Your task to perform on an android device: Go to eBay Image 0: 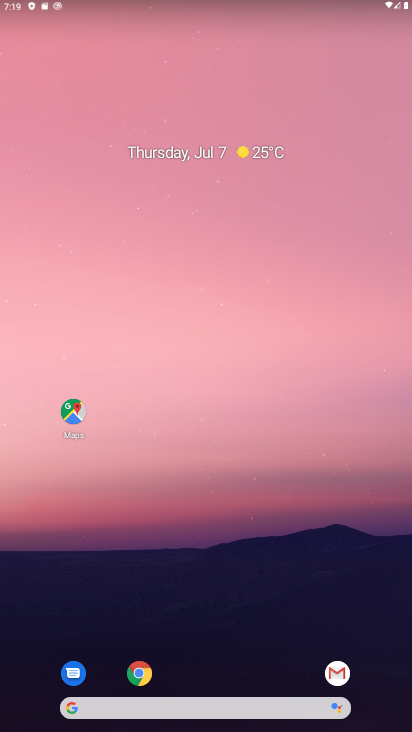
Step 0: click (138, 679)
Your task to perform on an android device: Go to eBay Image 1: 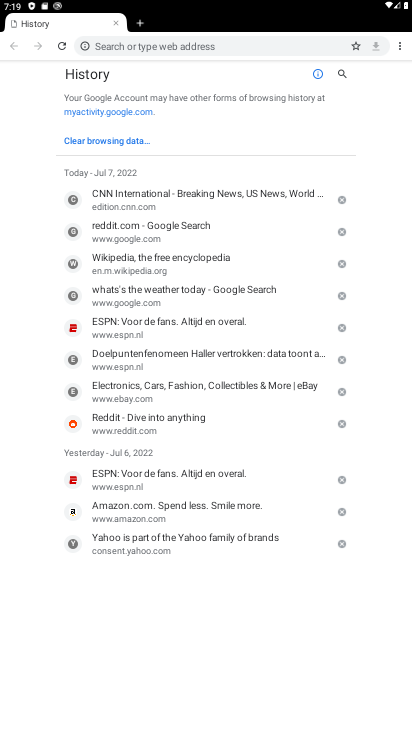
Step 1: click (134, 42)
Your task to perform on an android device: Go to eBay Image 2: 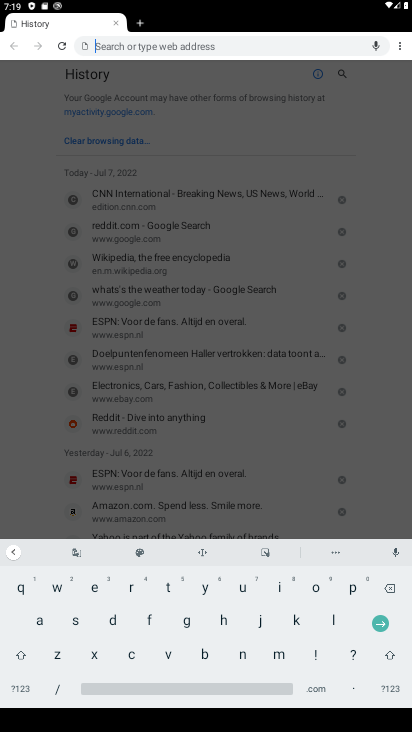
Step 2: click (94, 584)
Your task to perform on an android device: Go to eBay Image 3: 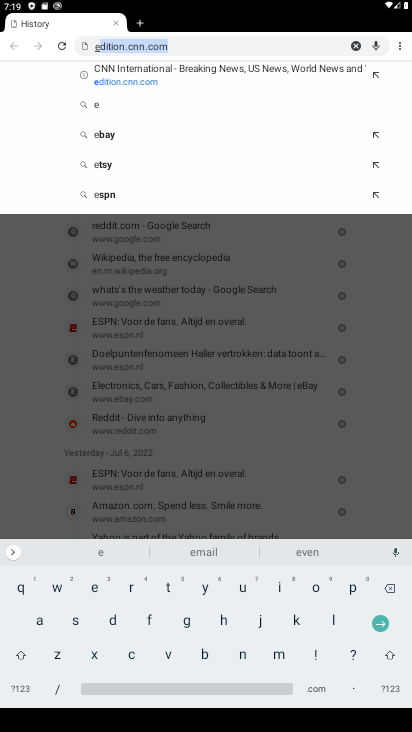
Step 3: click (104, 127)
Your task to perform on an android device: Go to eBay Image 4: 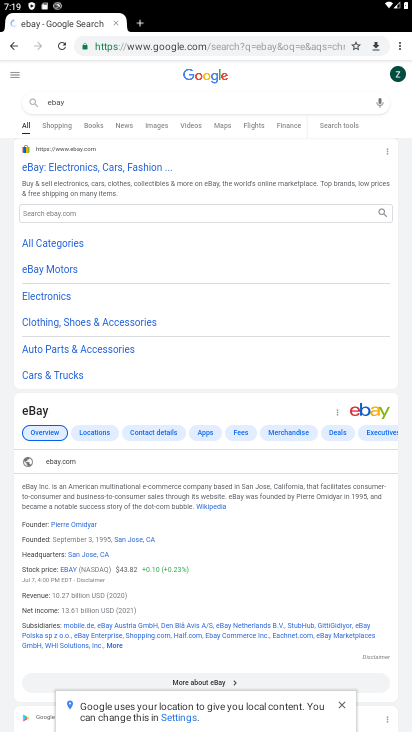
Step 4: click (63, 161)
Your task to perform on an android device: Go to eBay Image 5: 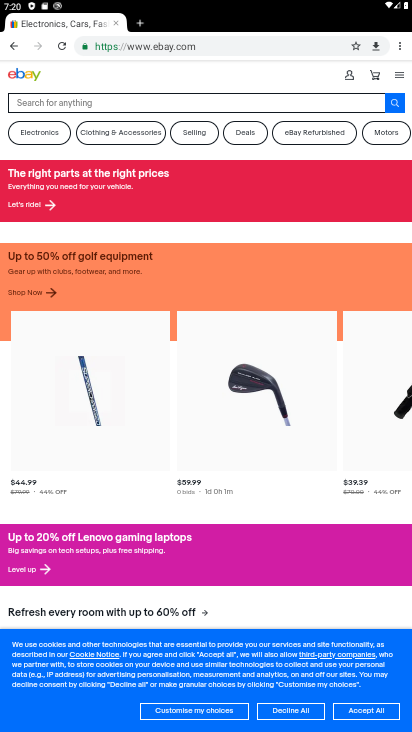
Step 5: task complete